Your task to perform on an android device: Check the news Image 0: 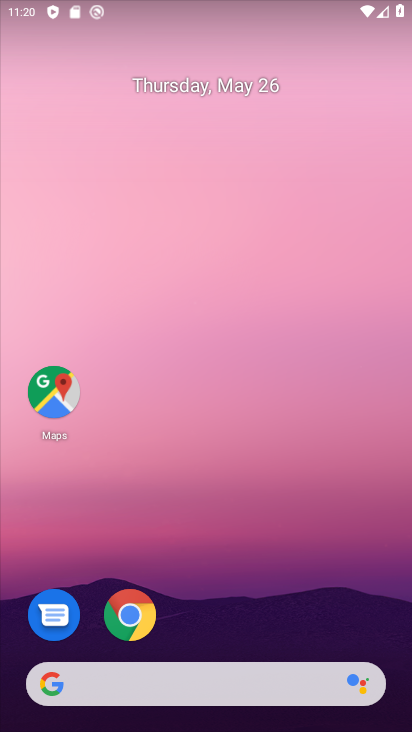
Step 0: click (261, 122)
Your task to perform on an android device: Check the news Image 1: 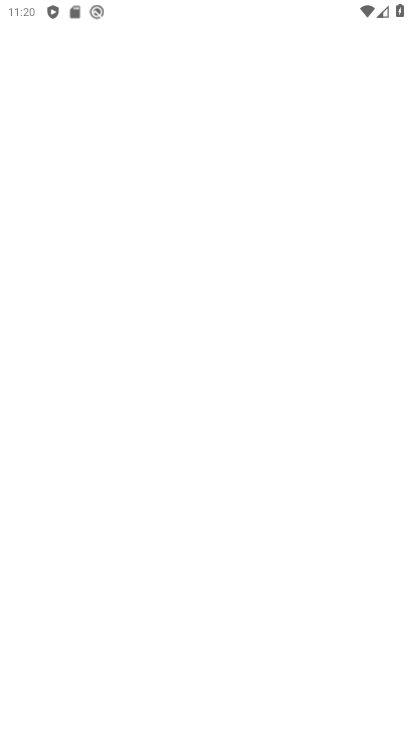
Step 1: press home button
Your task to perform on an android device: Check the news Image 2: 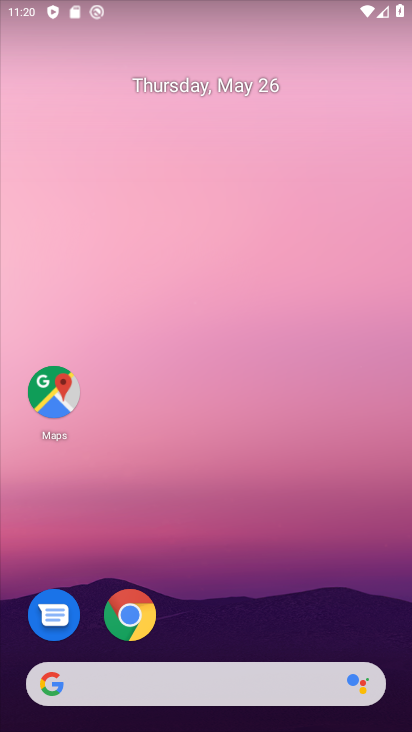
Step 2: click (188, 685)
Your task to perform on an android device: Check the news Image 3: 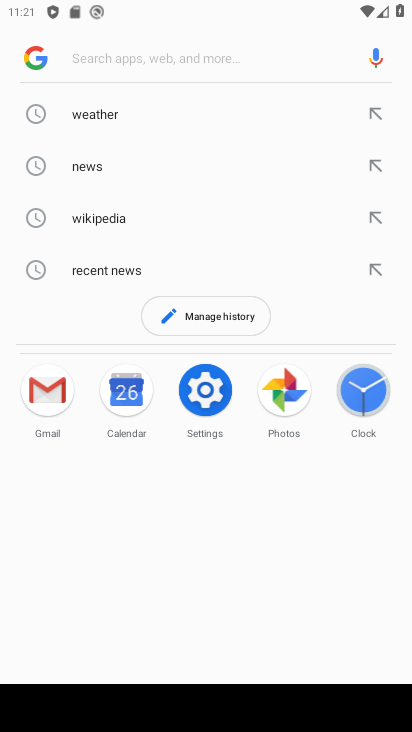
Step 3: click (154, 164)
Your task to perform on an android device: Check the news Image 4: 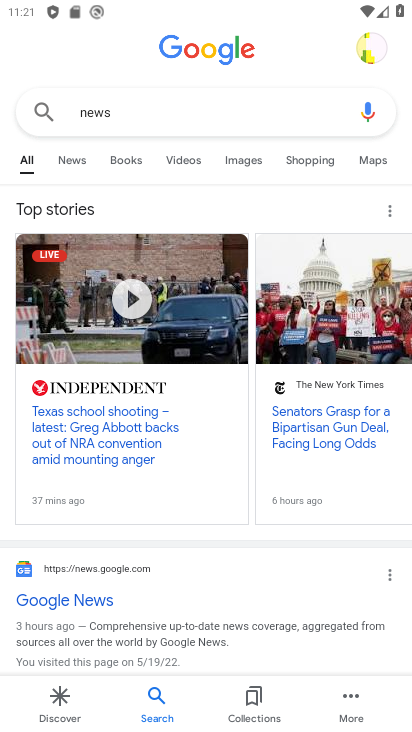
Step 4: task complete